Your task to perform on an android device: Clear all items from cart on target.com. Add razer thresher to the cart on target.com Image 0: 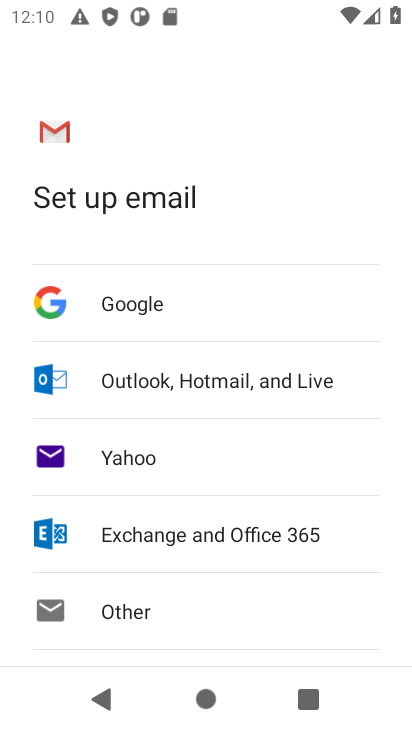
Step 0: press home button
Your task to perform on an android device: Clear all items from cart on target.com. Add razer thresher to the cart on target.com Image 1: 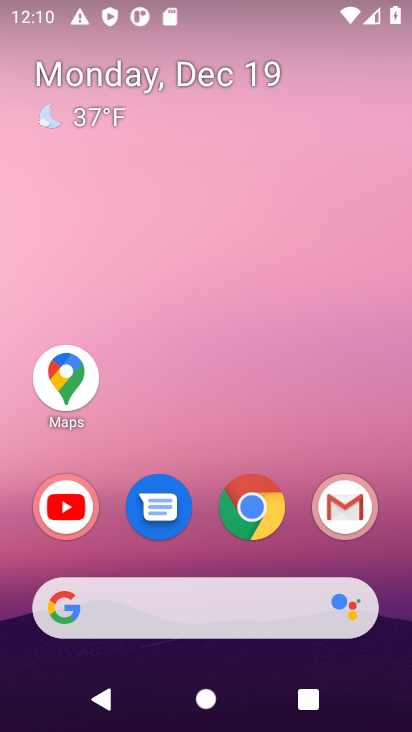
Step 1: click (252, 507)
Your task to perform on an android device: Clear all items from cart on target.com. Add razer thresher to the cart on target.com Image 2: 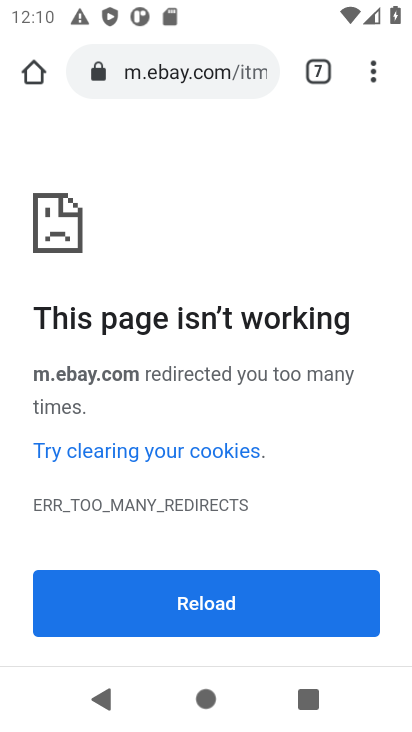
Step 2: click (191, 75)
Your task to perform on an android device: Clear all items from cart on target.com. Add razer thresher to the cart on target.com Image 3: 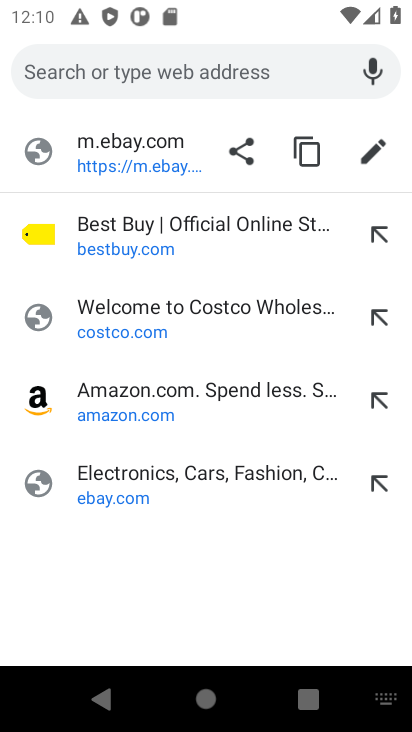
Step 3: type "target.com"
Your task to perform on an android device: Clear all items from cart on target.com. Add razer thresher to the cart on target.com Image 4: 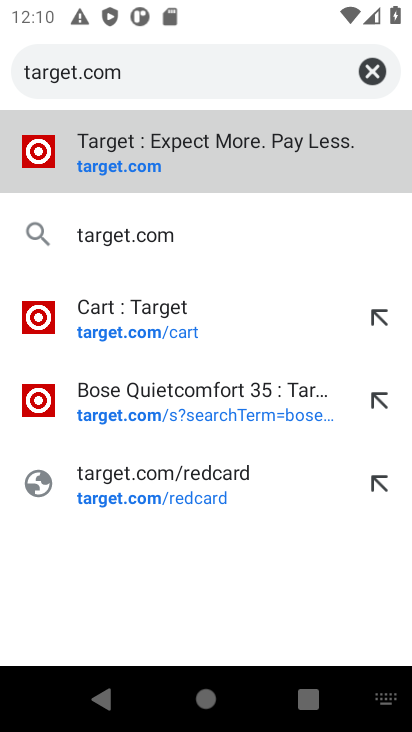
Step 4: click (118, 165)
Your task to perform on an android device: Clear all items from cart on target.com. Add razer thresher to the cart on target.com Image 5: 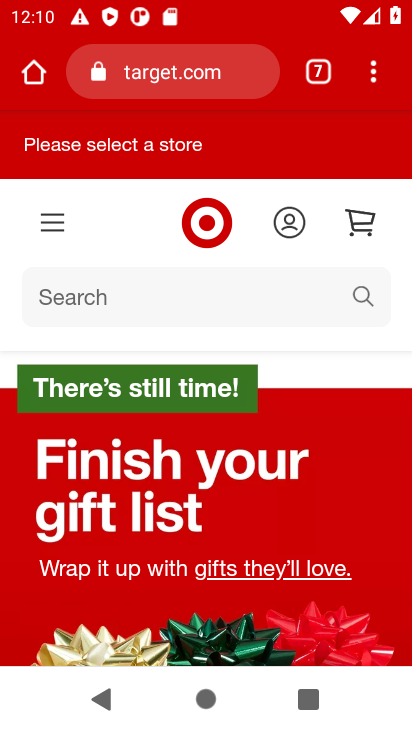
Step 5: click (359, 219)
Your task to perform on an android device: Clear all items from cart on target.com. Add razer thresher to the cart on target.com Image 6: 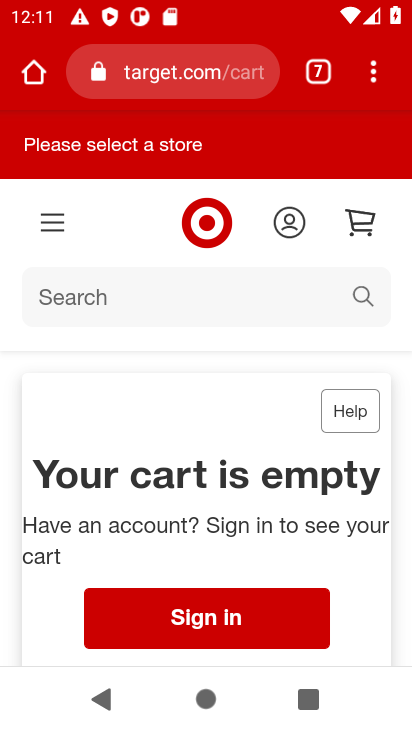
Step 6: drag from (237, 411) to (241, 277)
Your task to perform on an android device: Clear all items from cart on target.com. Add razer thresher to the cart on target.com Image 7: 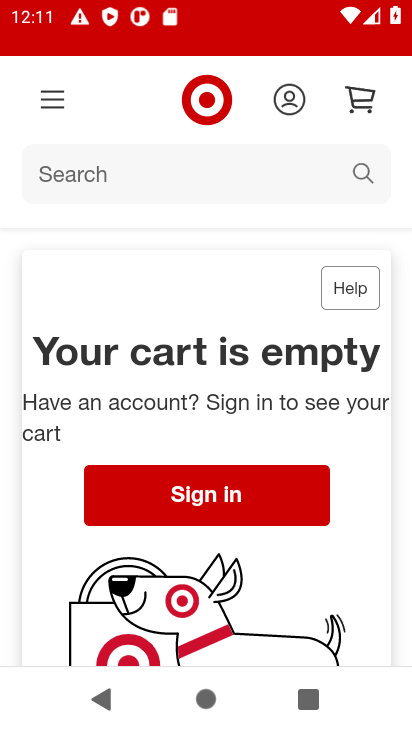
Step 7: click (86, 175)
Your task to perform on an android device: Clear all items from cart on target.com. Add razer thresher to the cart on target.com Image 8: 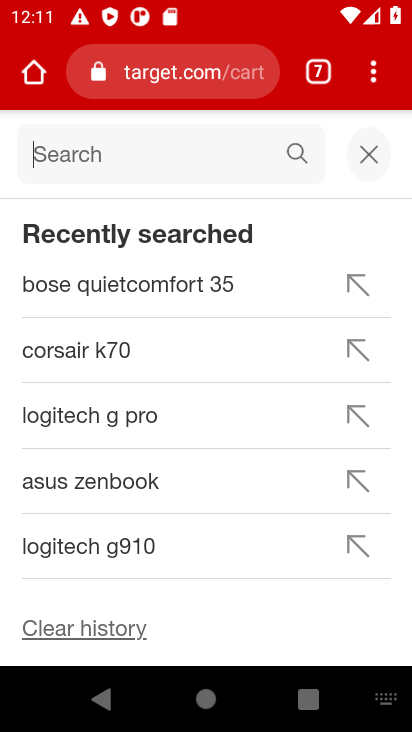
Step 8: type "razer thresher"
Your task to perform on an android device: Clear all items from cart on target.com. Add razer thresher to the cart on target.com Image 9: 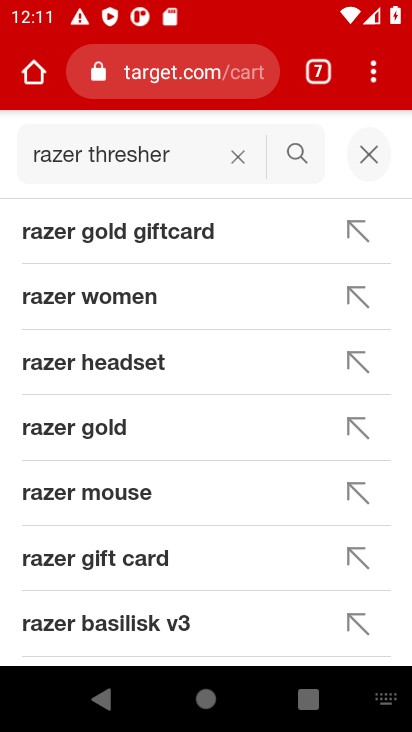
Step 9: click (289, 156)
Your task to perform on an android device: Clear all items from cart on target.com. Add razer thresher to the cart on target.com Image 10: 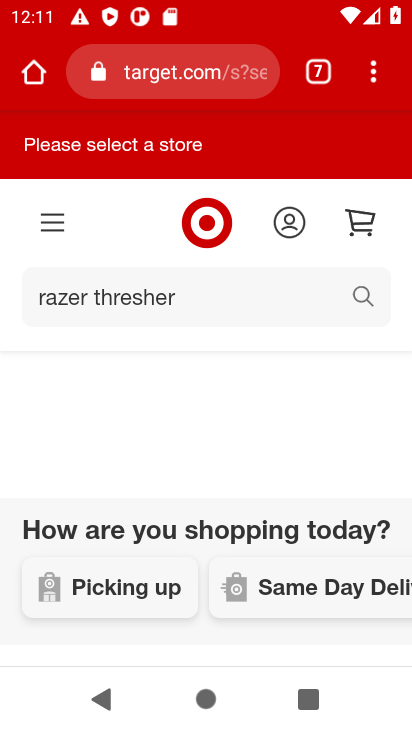
Step 10: task complete